Your task to perform on an android device: Show me popular videos on Youtube Image 0: 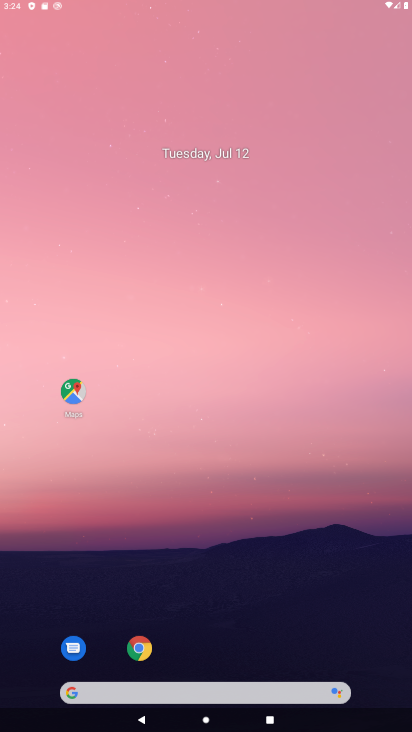
Step 0: press home button
Your task to perform on an android device: Show me popular videos on Youtube Image 1: 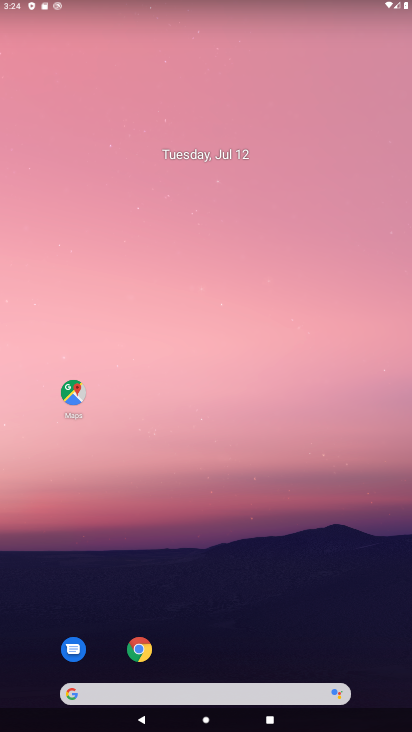
Step 1: drag from (227, 668) to (211, 120)
Your task to perform on an android device: Show me popular videos on Youtube Image 2: 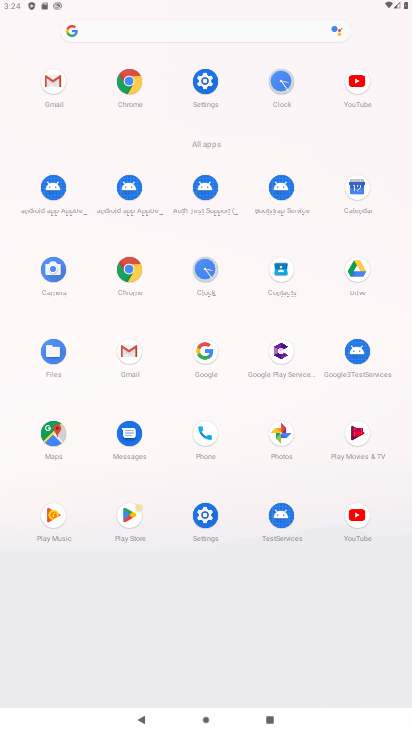
Step 2: click (352, 510)
Your task to perform on an android device: Show me popular videos on Youtube Image 3: 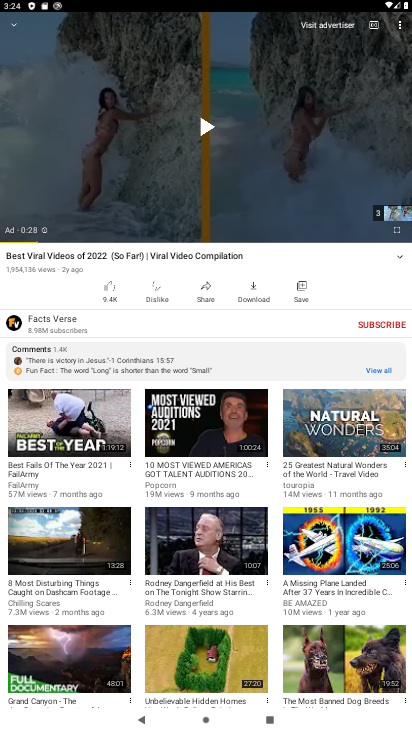
Step 3: press back button
Your task to perform on an android device: Show me popular videos on Youtube Image 4: 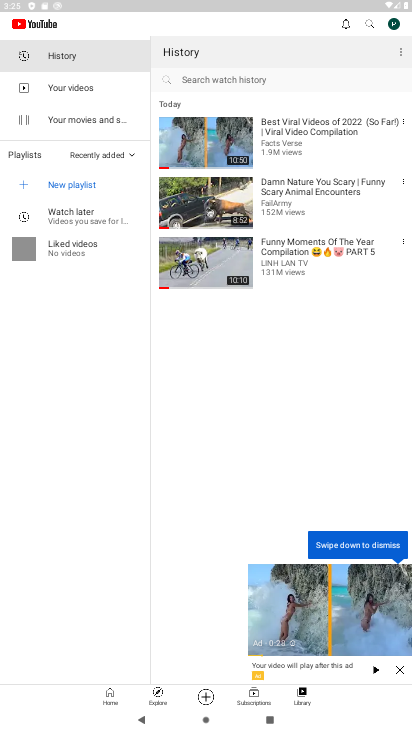
Step 4: click (111, 687)
Your task to perform on an android device: Show me popular videos on Youtube Image 5: 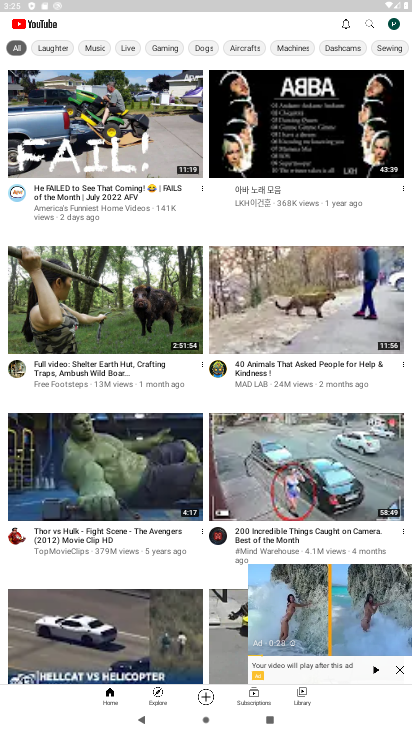
Step 5: click (303, 697)
Your task to perform on an android device: Show me popular videos on Youtube Image 6: 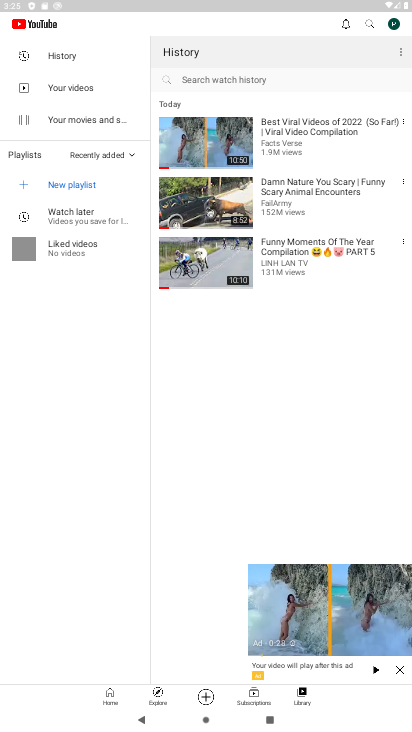
Step 6: click (398, 670)
Your task to perform on an android device: Show me popular videos on Youtube Image 7: 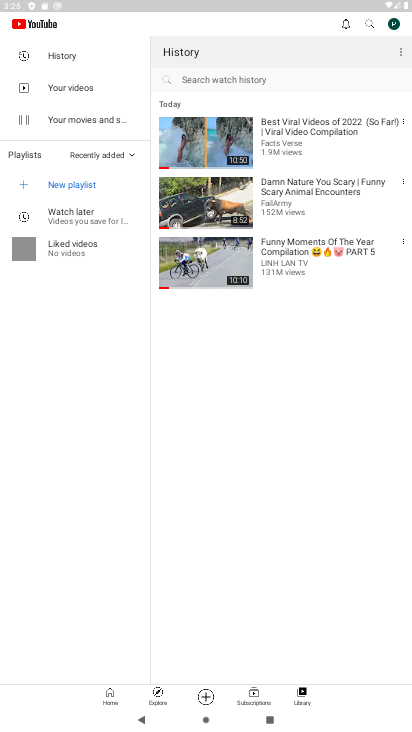
Step 7: click (399, 49)
Your task to perform on an android device: Show me popular videos on Youtube Image 8: 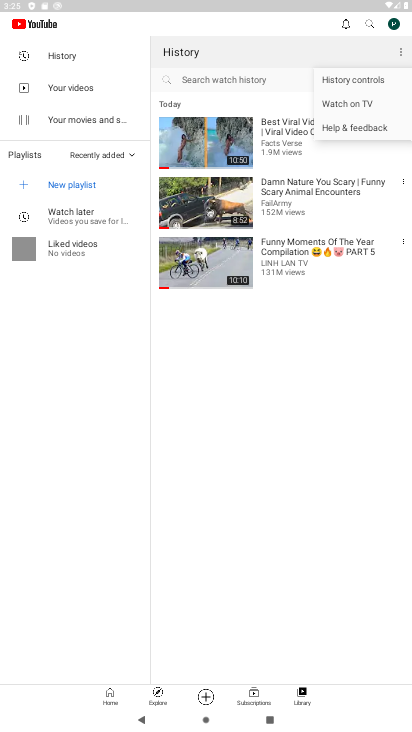
Step 8: click (396, 19)
Your task to perform on an android device: Show me popular videos on Youtube Image 9: 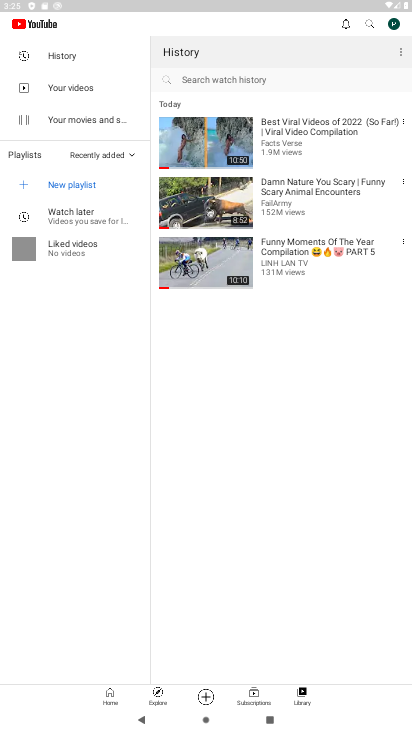
Step 9: task complete